Your task to perform on an android device: turn on wifi Image 0: 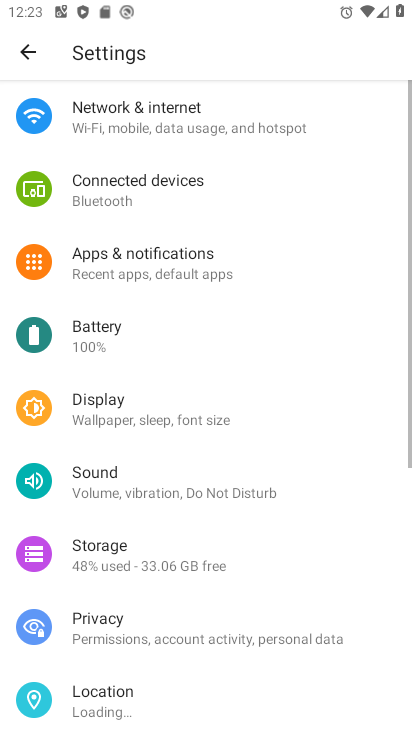
Step 0: press back button
Your task to perform on an android device: turn on wifi Image 1: 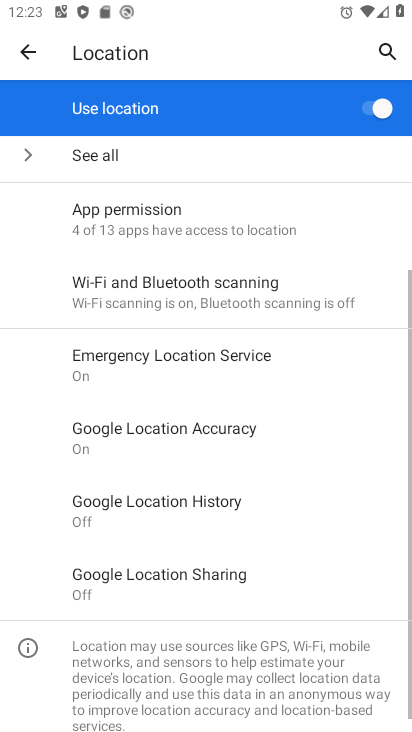
Step 1: click (30, 52)
Your task to perform on an android device: turn on wifi Image 2: 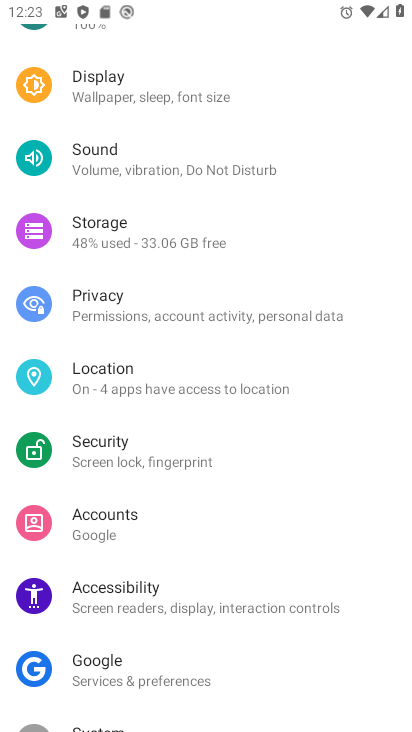
Step 2: drag from (236, 138) to (315, 647)
Your task to perform on an android device: turn on wifi Image 3: 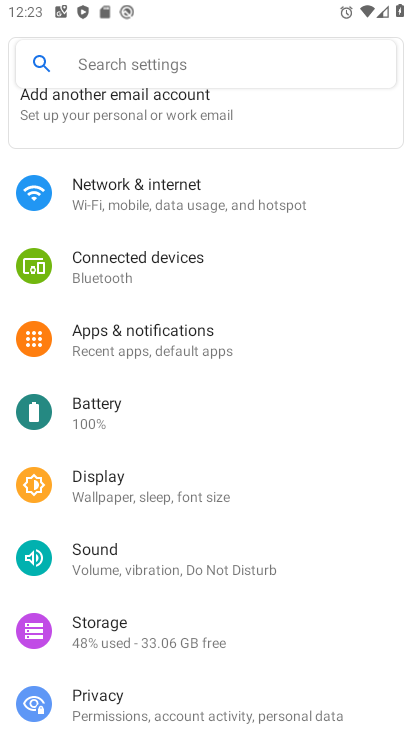
Step 3: click (199, 199)
Your task to perform on an android device: turn on wifi Image 4: 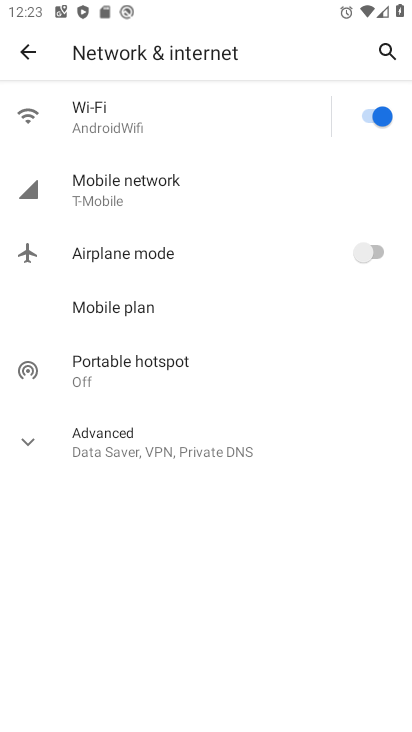
Step 4: task complete